Your task to perform on an android device: turn on priority inbox in the gmail app Image 0: 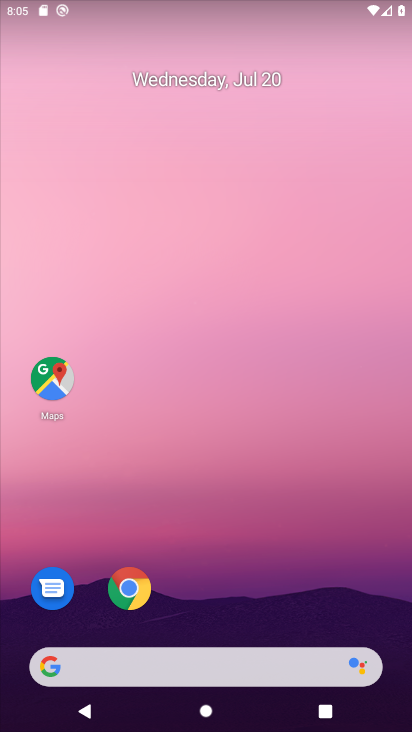
Step 0: press home button
Your task to perform on an android device: turn on priority inbox in the gmail app Image 1: 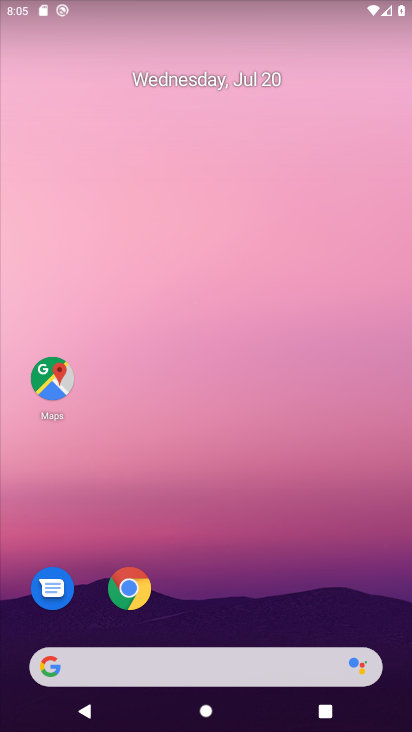
Step 1: drag from (219, 616) to (326, 332)
Your task to perform on an android device: turn on priority inbox in the gmail app Image 2: 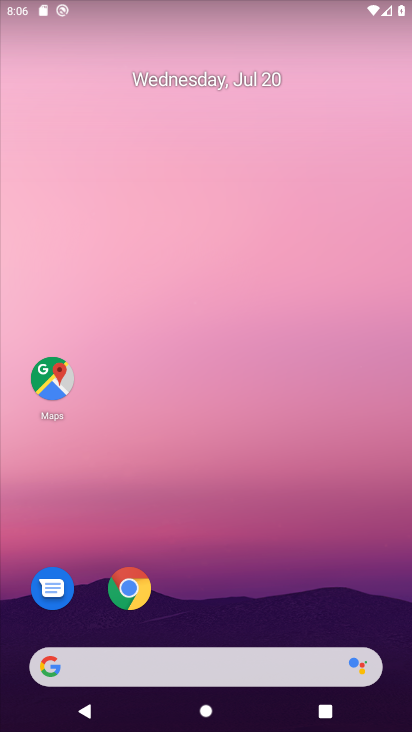
Step 2: drag from (217, 610) to (263, 80)
Your task to perform on an android device: turn on priority inbox in the gmail app Image 3: 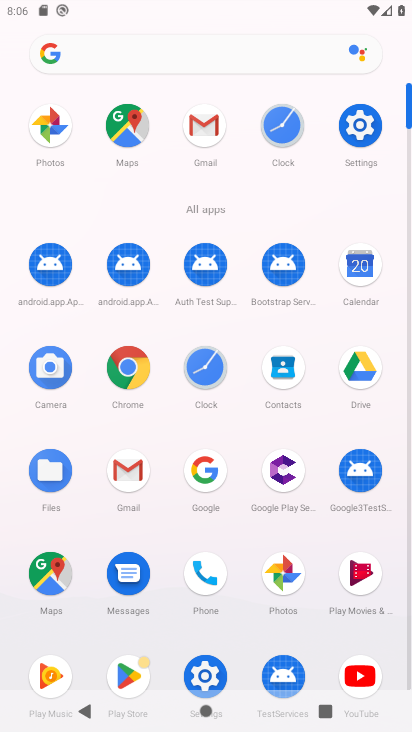
Step 3: click (118, 465)
Your task to perform on an android device: turn on priority inbox in the gmail app Image 4: 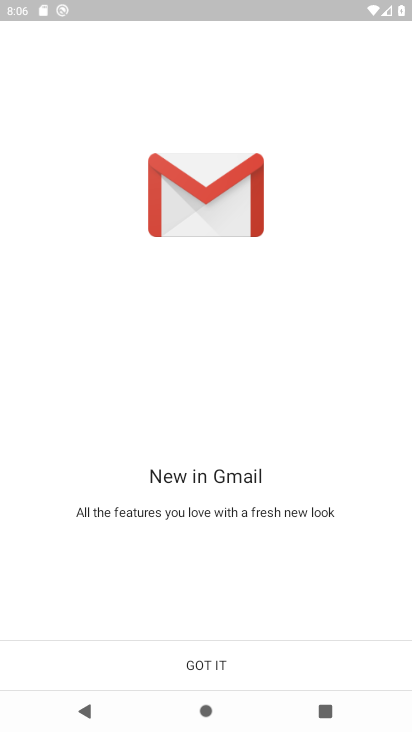
Step 4: click (196, 673)
Your task to perform on an android device: turn on priority inbox in the gmail app Image 5: 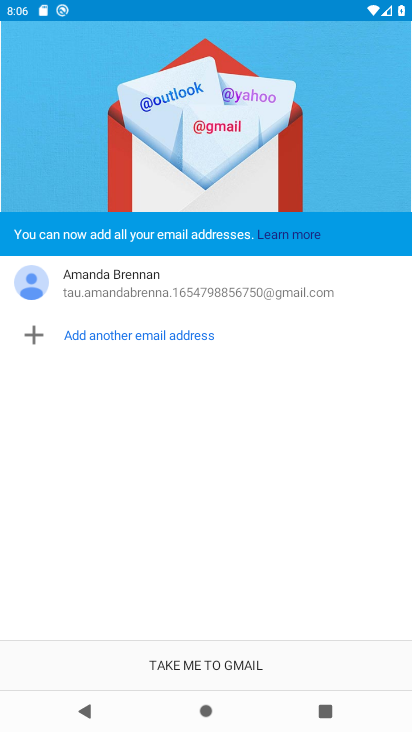
Step 5: click (206, 661)
Your task to perform on an android device: turn on priority inbox in the gmail app Image 6: 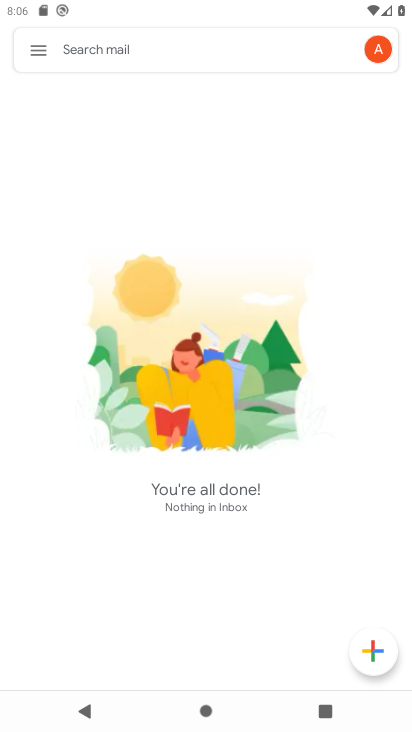
Step 6: click (33, 44)
Your task to perform on an android device: turn on priority inbox in the gmail app Image 7: 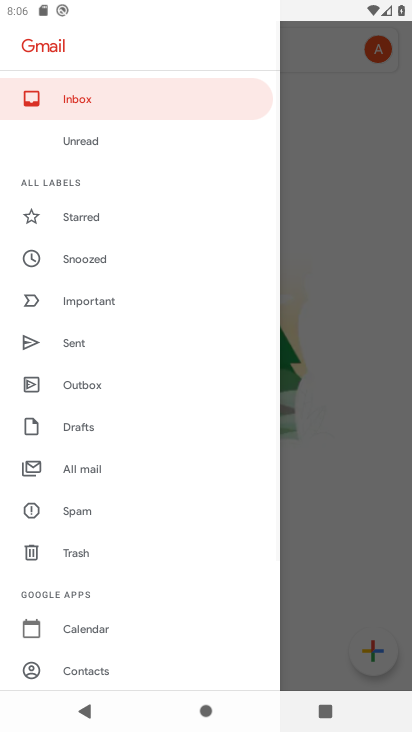
Step 7: drag from (119, 610) to (183, 124)
Your task to perform on an android device: turn on priority inbox in the gmail app Image 8: 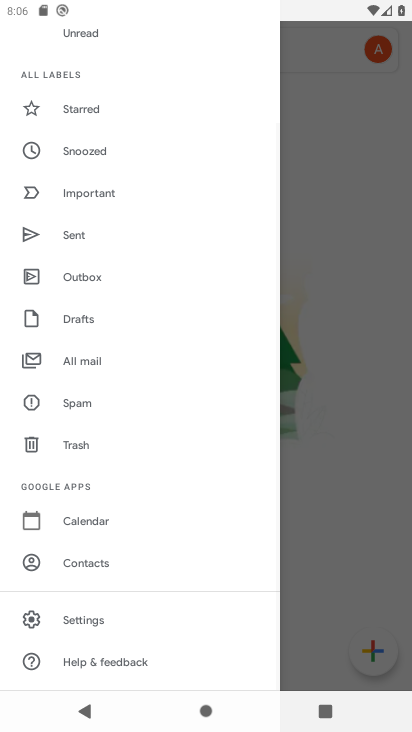
Step 8: click (91, 618)
Your task to perform on an android device: turn on priority inbox in the gmail app Image 9: 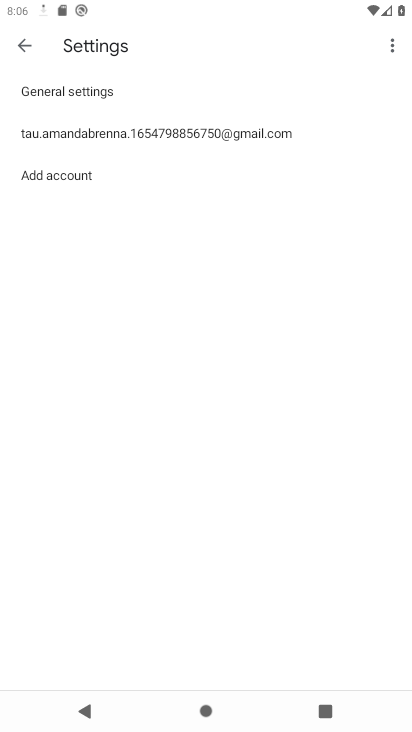
Step 9: click (70, 132)
Your task to perform on an android device: turn on priority inbox in the gmail app Image 10: 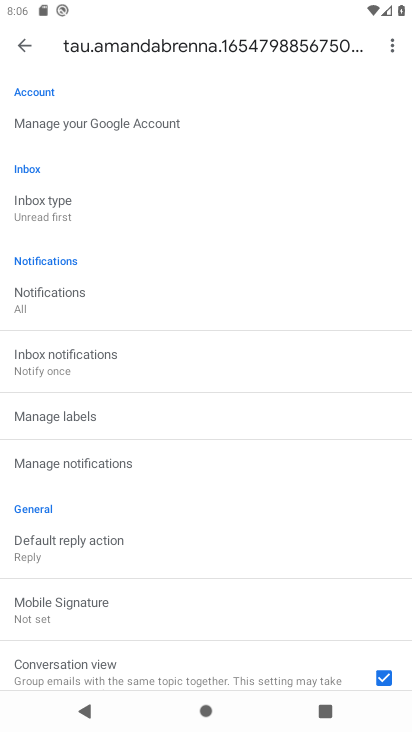
Step 10: click (77, 209)
Your task to perform on an android device: turn on priority inbox in the gmail app Image 11: 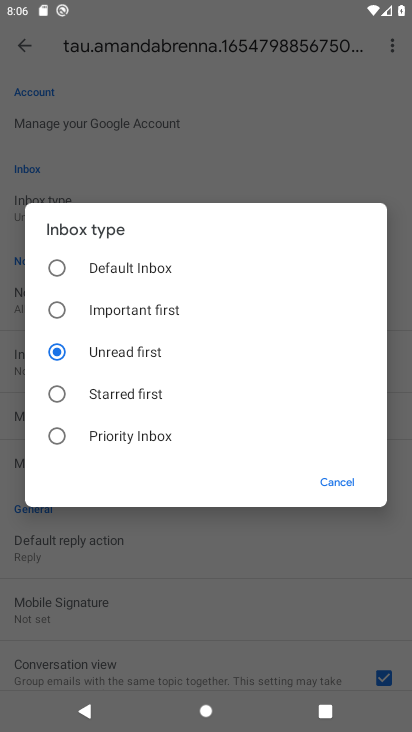
Step 11: click (58, 433)
Your task to perform on an android device: turn on priority inbox in the gmail app Image 12: 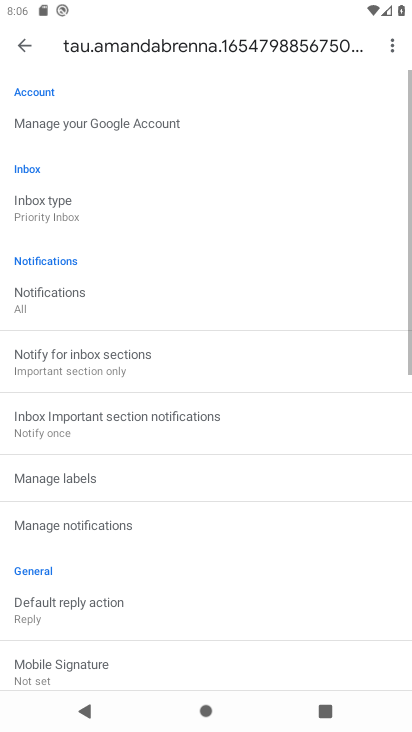
Step 12: task complete